Your task to perform on an android device: open chrome and create a bookmark for the current page Image 0: 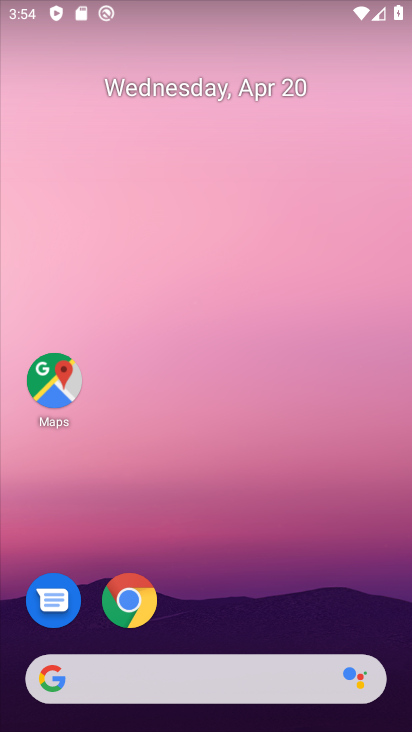
Step 0: drag from (215, 622) to (245, 90)
Your task to perform on an android device: open chrome and create a bookmark for the current page Image 1: 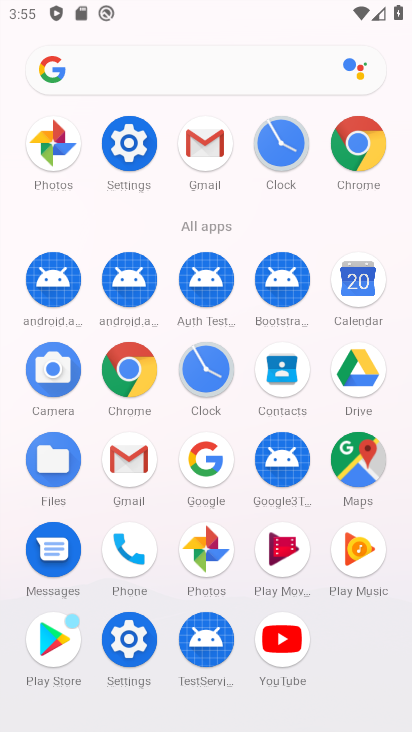
Step 1: click (132, 369)
Your task to perform on an android device: open chrome and create a bookmark for the current page Image 2: 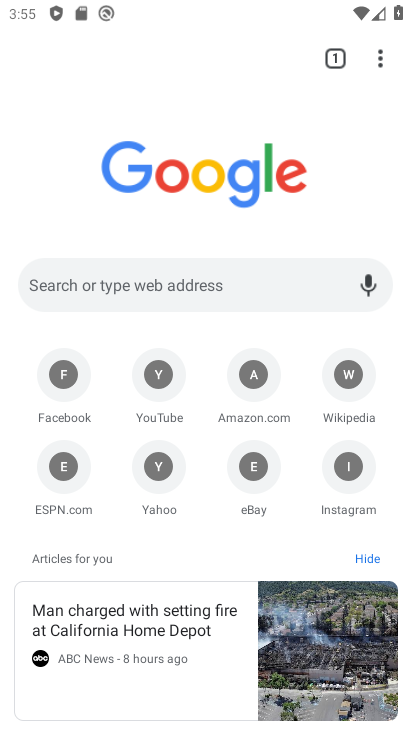
Step 2: click (194, 285)
Your task to perform on an android device: open chrome and create a bookmark for the current page Image 3: 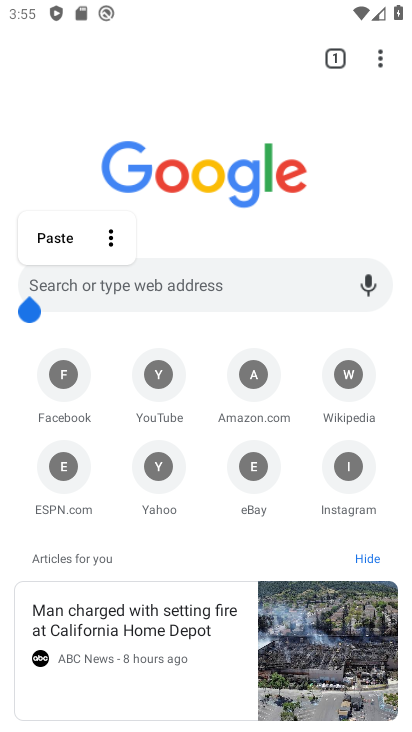
Step 3: click (123, 277)
Your task to perform on an android device: open chrome and create a bookmark for the current page Image 4: 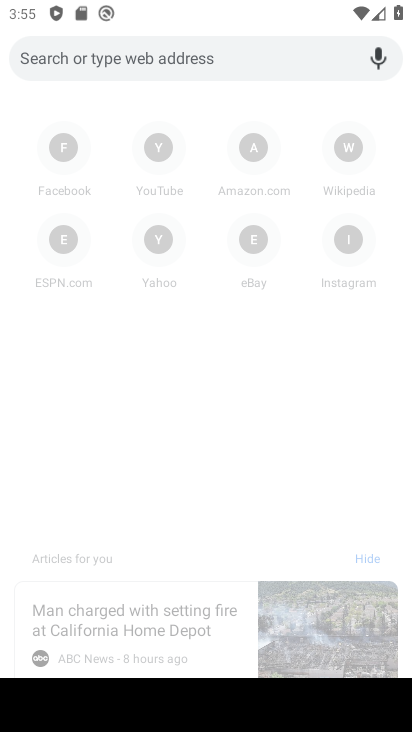
Step 4: type "magic box"
Your task to perform on an android device: open chrome and create a bookmark for the current page Image 5: 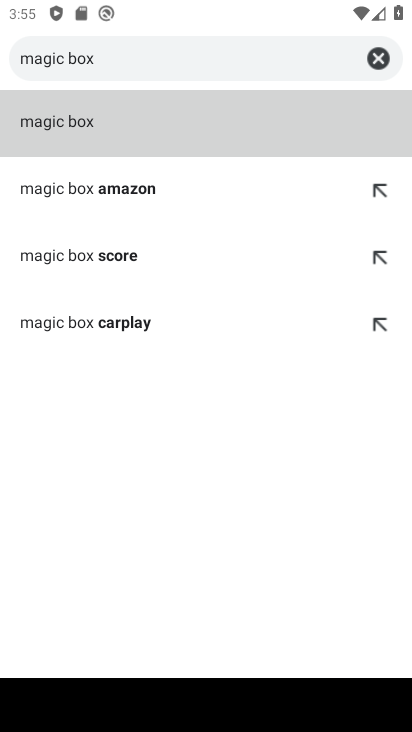
Step 5: click (125, 119)
Your task to perform on an android device: open chrome and create a bookmark for the current page Image 6: 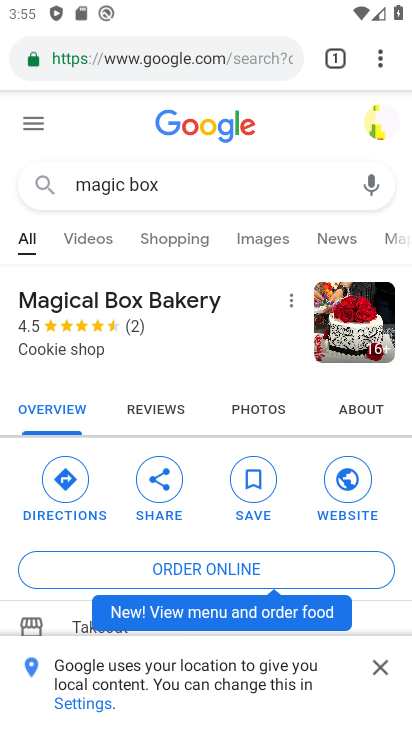
Step 6: drag from (149, 564) to (195, 252)
Your task to perform on an android device: open chrome and create a bookmark for the current page Image 7: 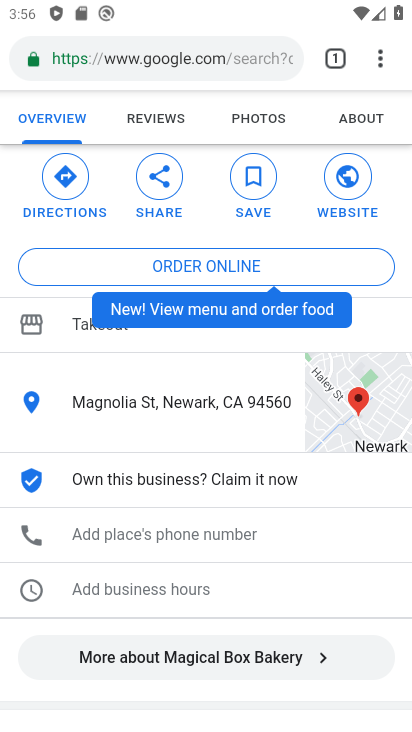
Step 7: drag from (201, 626) to (225, 226)
Your task to perform on an android device: open chrome and create a bookmark for the current page Image 8: 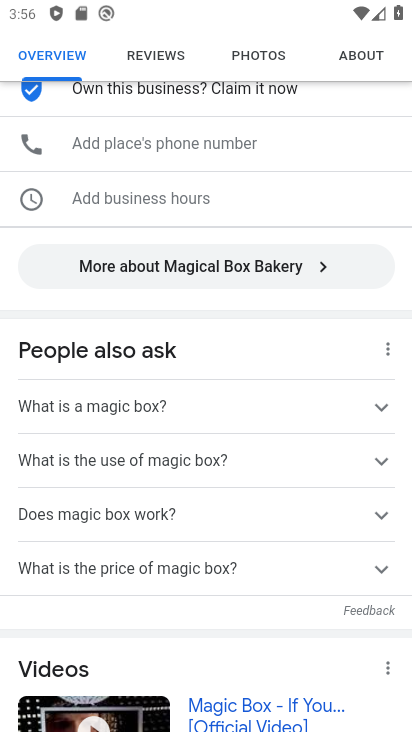
Step 8: drag from (310, 319) to (314, 683)
Your task to perform on an android device: open chrome and create a bookmark for the current page Image 9: 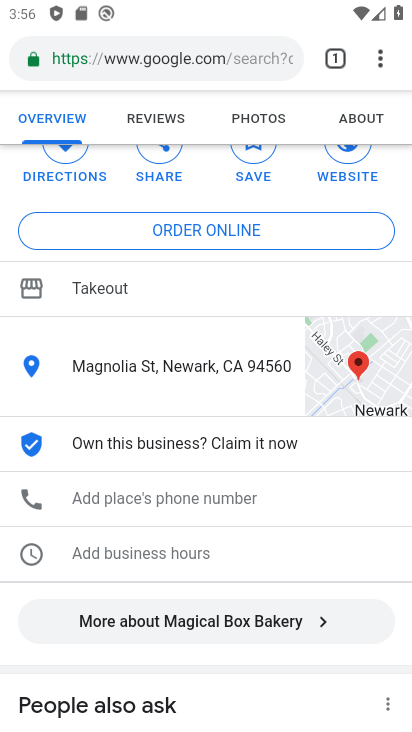
Step 9: click (377, 57)
Your task to perform on an android device: open chrome and create a bookmark for the current page Image 10: 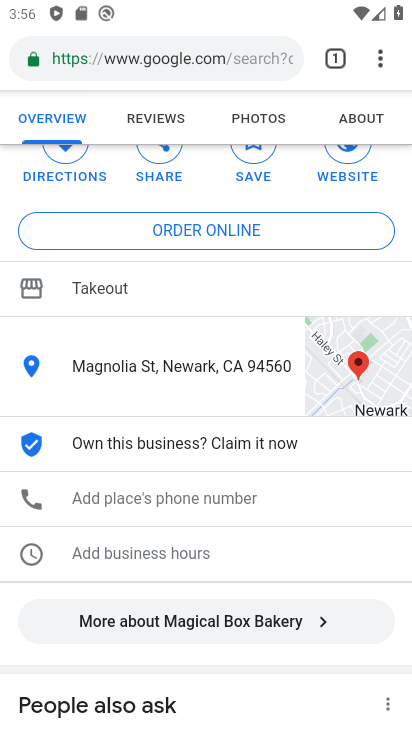
Step 10: click (374, 65)
Your task to perform on an android device: open chrome and create a bookmark for the current page Image 11: 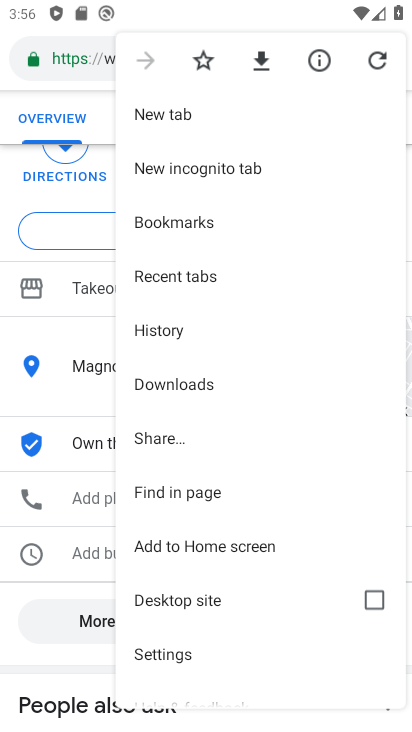
Step 11: click (207, 64)
Your task to perform on an android device: open chrome and create a bookmark for the current page Image 12: 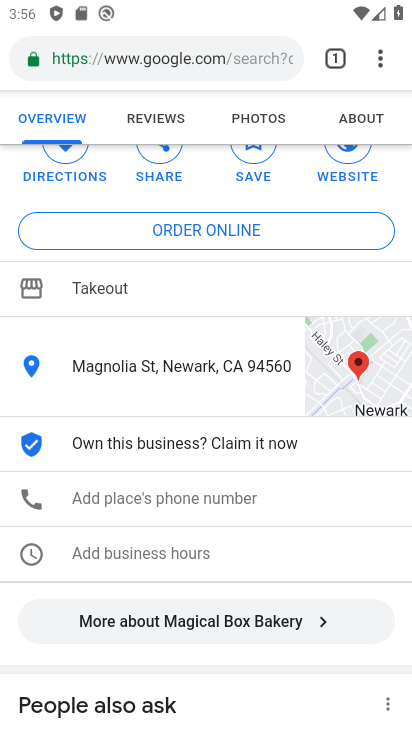
Step 12: task complete